Your task to perform on an android device: Go to location settings Image 0: 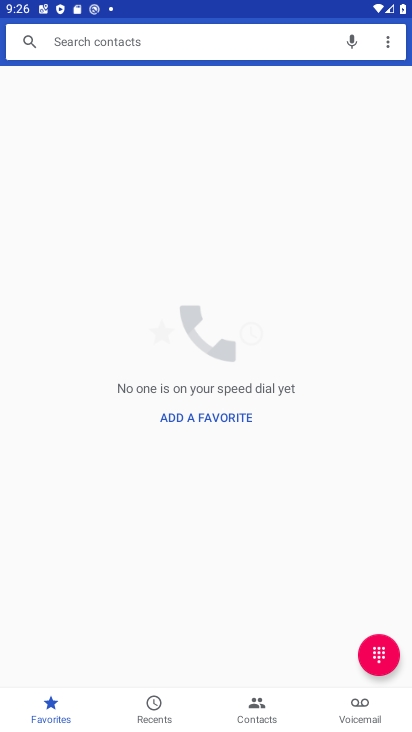
Step 0: press home button
Your task to perform on an android device: Go to location settings Image 1: 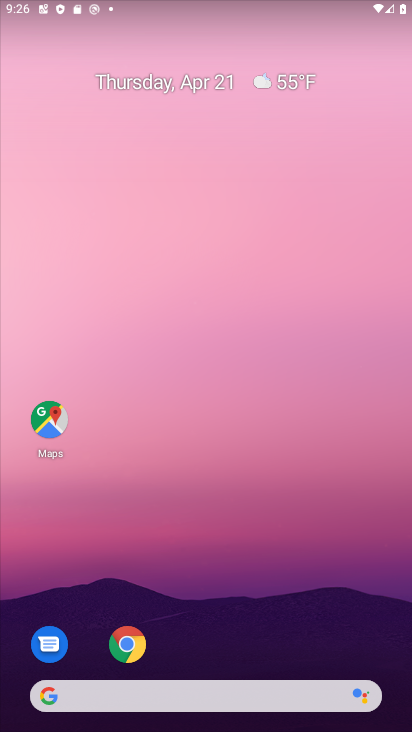
Step 1: drag from (283, 581) to (219, 153)
Your task to perform on an android device: Go to location settings Image 2: 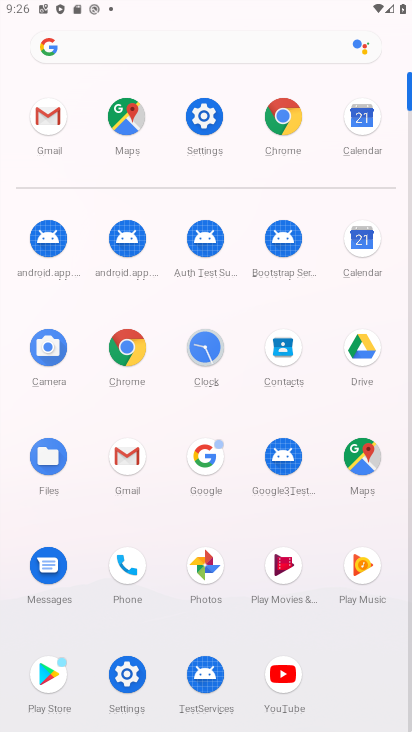
Step 2: click (122, 684)
Your task to perform on an android device: Go to location settings Image 3: 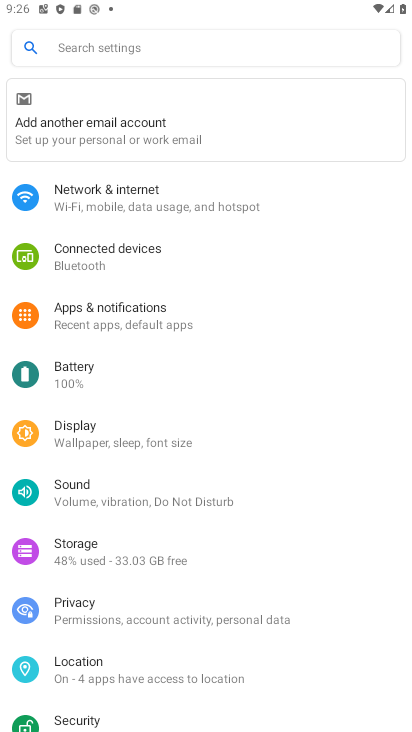
Step 3: click (122, 684)
Your task to perform on an android device: Go to location settings Image 4: 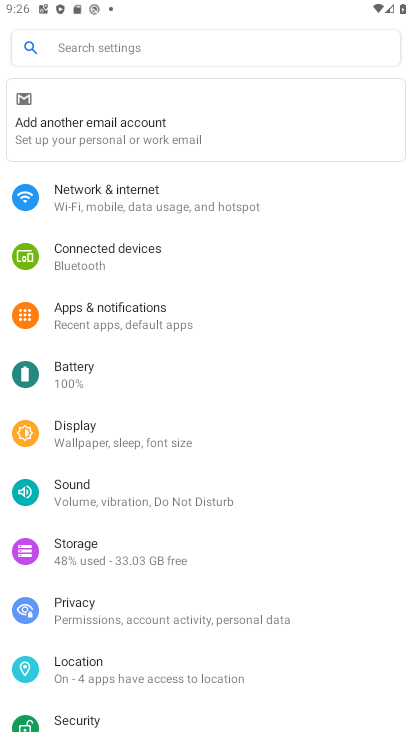
Step 4: click (143, 663)
Your task to perform on an android device: Go to location settings Image 5: 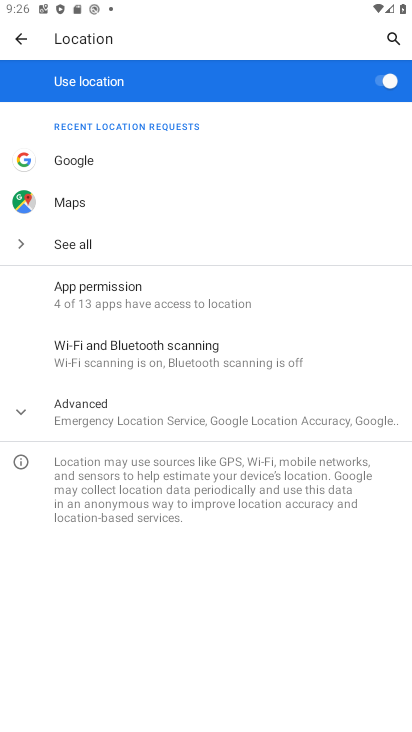
Step 5: task complete